Your task to perform on an android device: turn off wifi Image 0: 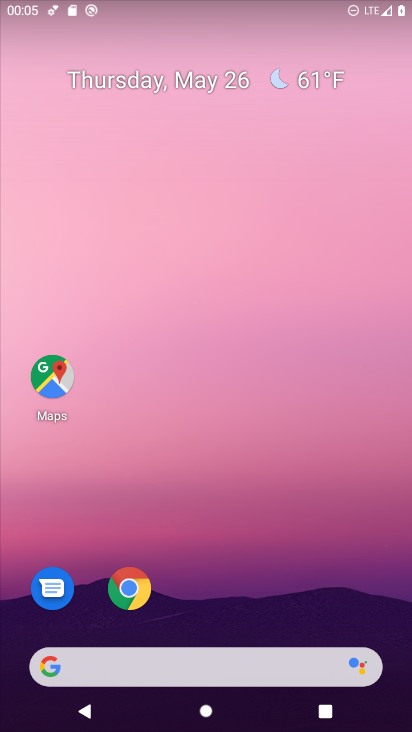
Step 0: drag from (295, 565) to (222, 121)
Your task to perform on an android device: turn off wifi Image 1: 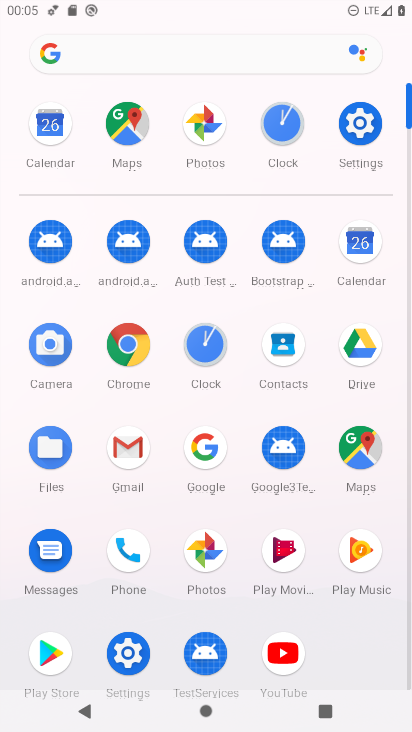
Step 1: click (359, 125)
Your task to perform on an android device: turn off wifi Image 2: 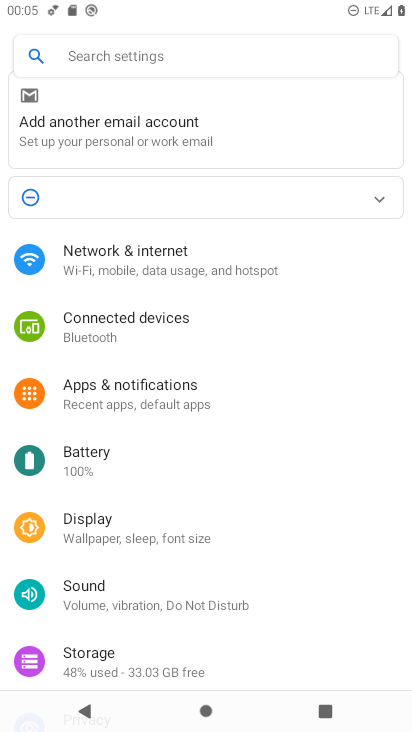
Step 2: click (121, 249)
Your task to perform on an android device: turn off wifi Image 3: 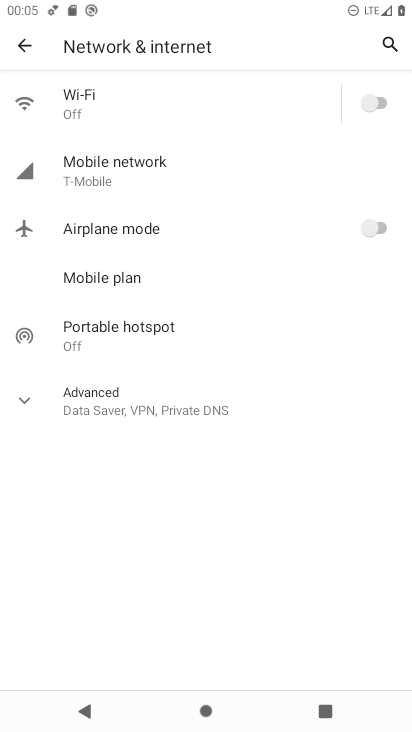
Step 3: task complete